Your task to perform on an android device: turn on priority inbox in the gmail app Image 0: 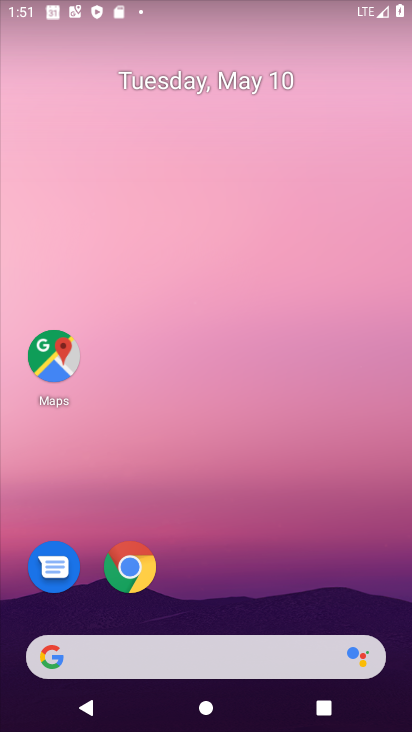
Step 0: drag from (392, 621) to (333, 80)
Your task to perform on an android device: turn on priority inbox in the gmail app Image 1: 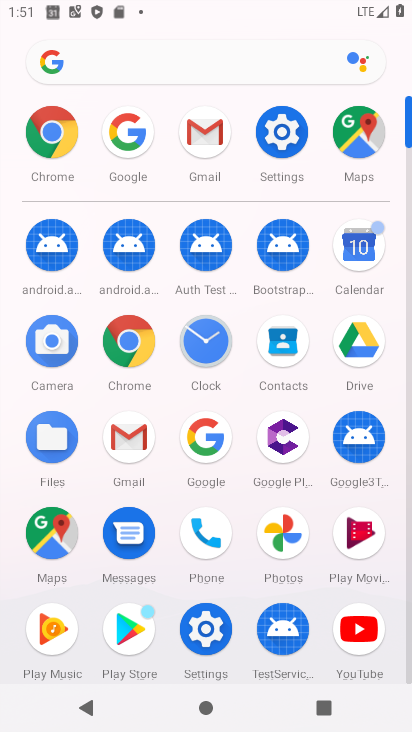
Step 1: click (124, 443)
Your task to perform on an android device: turn on priority inbox in the gmail app Image 2: 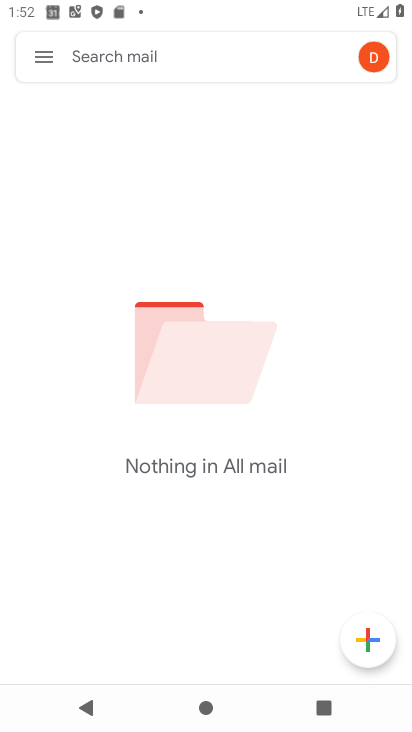
Step 2: click (51, 53)
Your task to perform on an android device: turn on priority inbox in the gmail app Image 3: 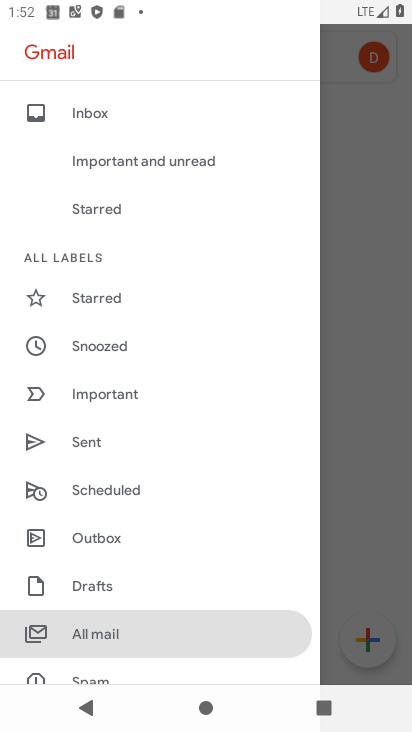
Step 3: drag from (150, 610) to (160, 164)
Your task to perform on an android device: turn on priority inbox in the gmail app Image 4: 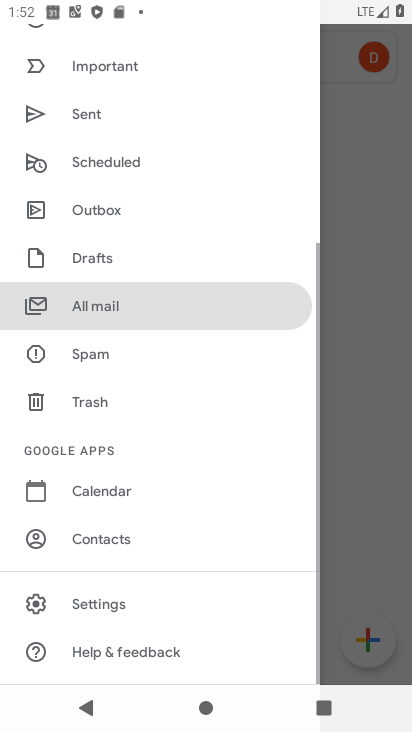
Step 4: click (135, 590)
Your task to perform on an android device: turn on priority inbox in the gmail app Image 5: 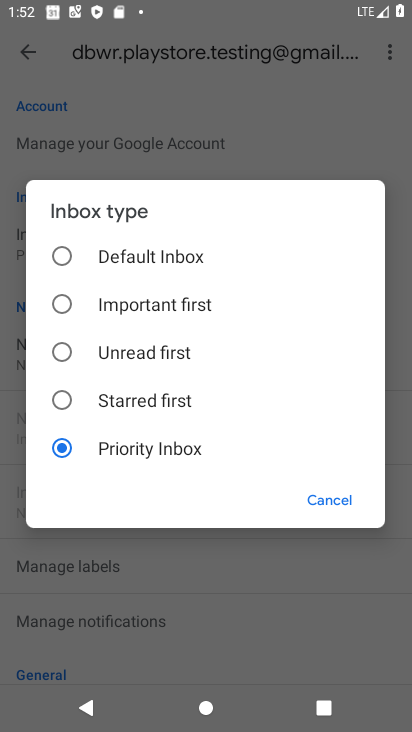
Step 5: task complete